Your task to perform on an android device: Go to wifi settings Image 0: 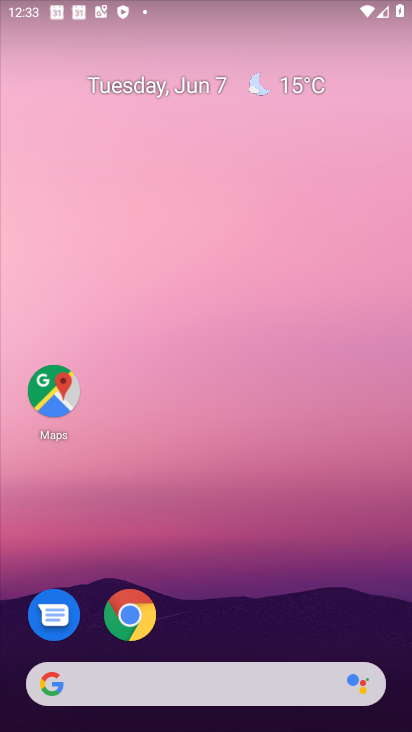
Step 0: drag from (219, 624) to (187, 99)
Your task to perform on an android device: Go to wifi settings Image 1: 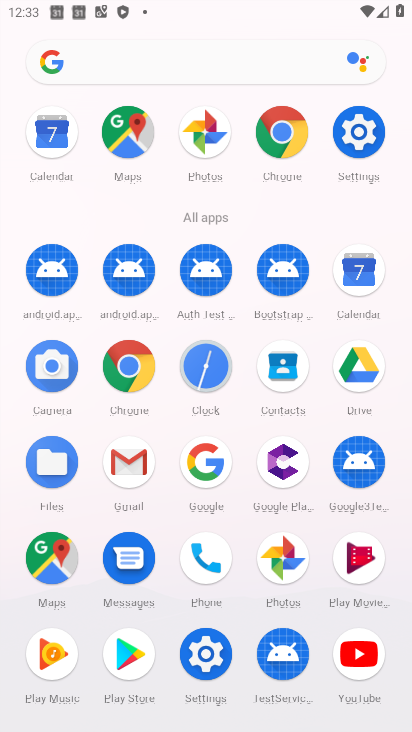
Step 1: drag from (227, 615) to (250, 247)
Your task to perform on an android device: Go to wifi settings Image 2: 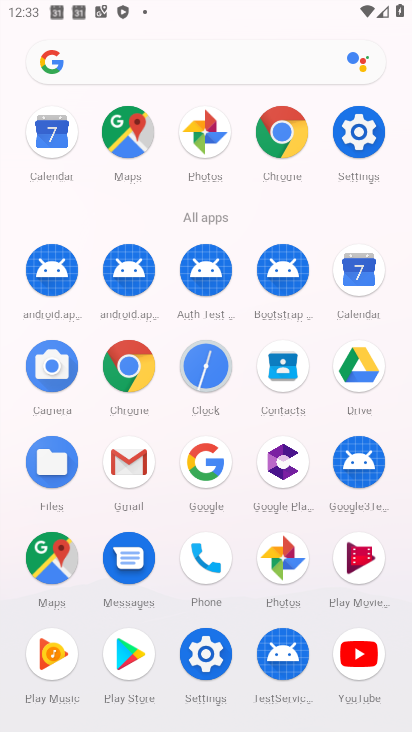
Step 2: drag from (207, 629) to (197, 279)
Your task to perform on an android device: Go to wifi settings Image 3: 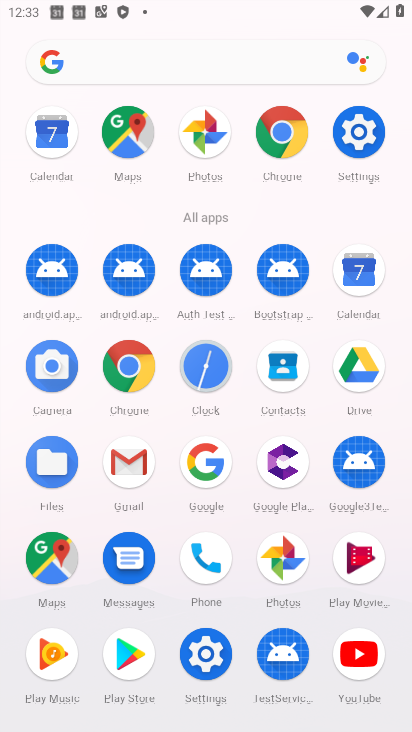
Step 3: drag from (215, 629) to (226, 332)
Your task to perform on an android device: Go to wifi settings Image 4: 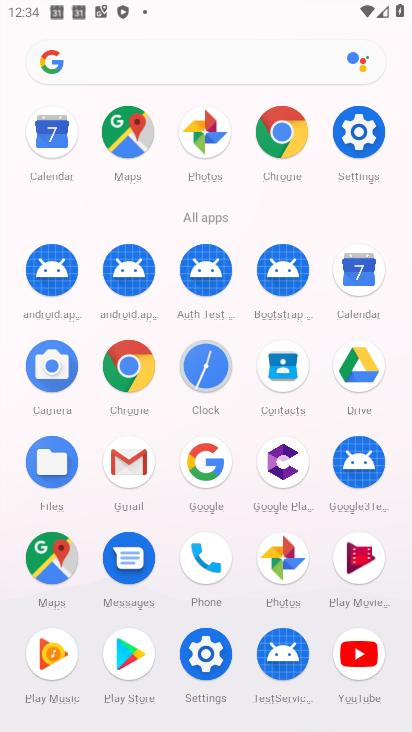
Step 4: drag from (246, 469) to (246, 283)
Your task to perform on an android device: Go to wifi settings Image 5: 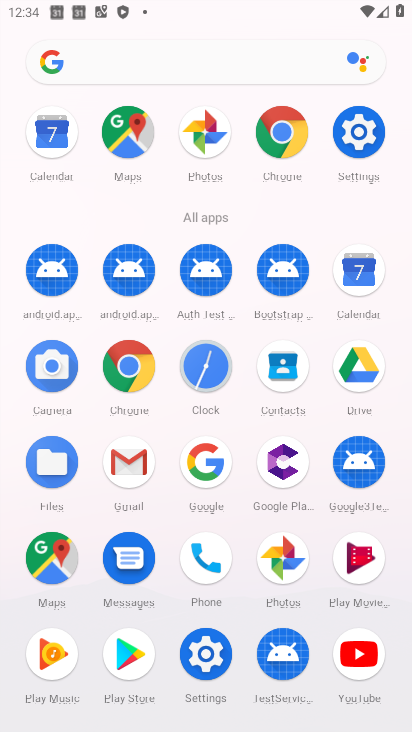
Step 5: drag from (230, 206) to (223, 516)
Your task to perform on an android device: Go to wifi settings Image 6: 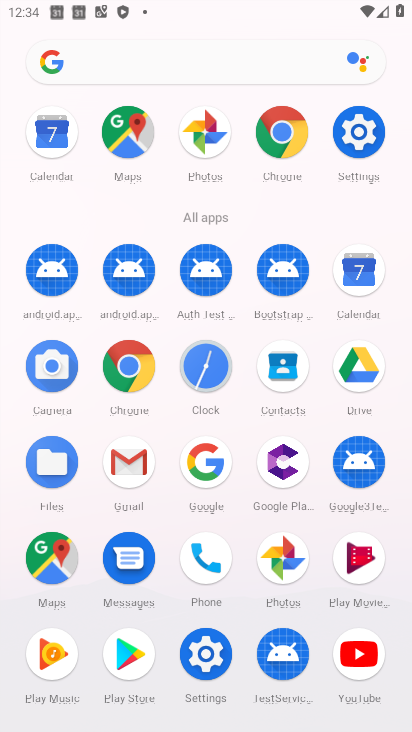
Step 6: click (356, 145)
Your task to perform on an android device: Go to wifi settings Image 7: 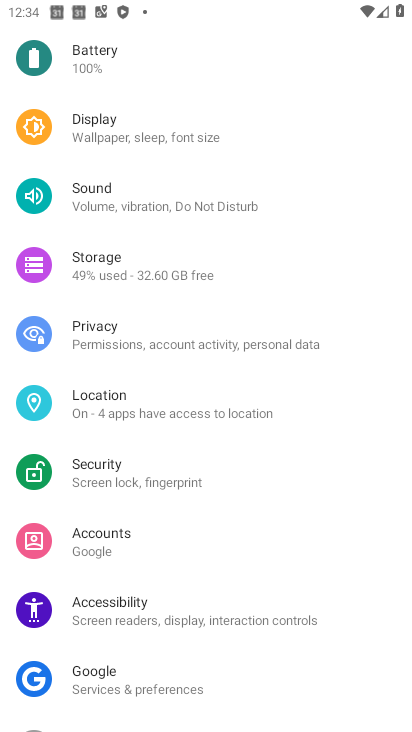
Step 7: drag from (159, 140) to (98, 729)
Your task to perform on an android device: Go to wifi settings Image 8: 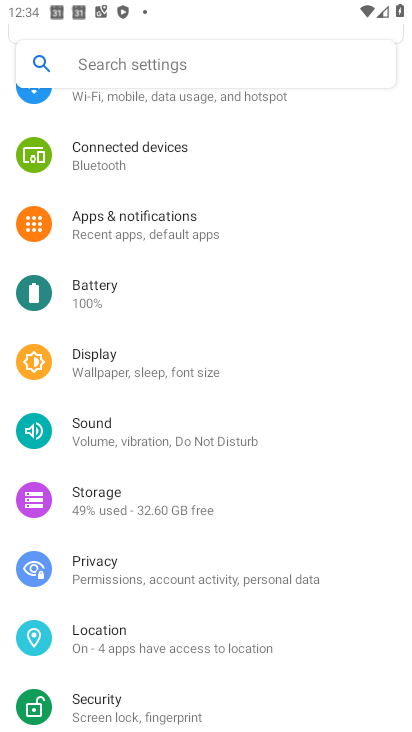
Step 8: drag from (119, 170) to (126, 646)
Your task to perform on an android device: Go to wifi settings Image 9: 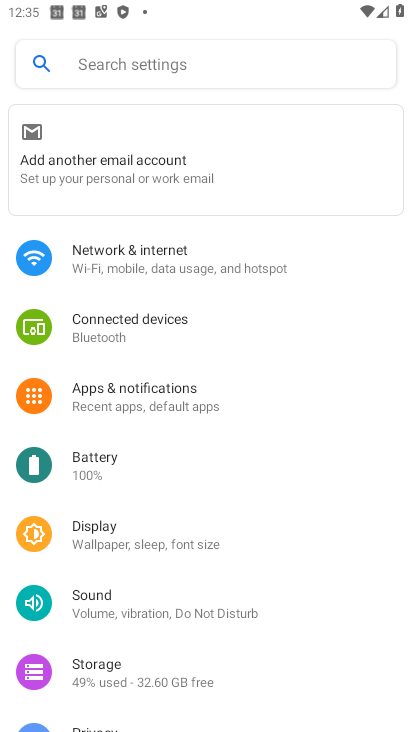
Step 9: click (121, 263)
Your task to perform on an android device: Go to wifi settings Image 10: 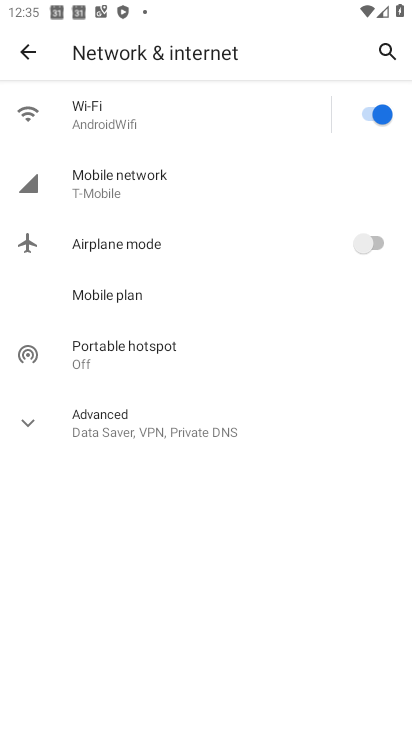
Step 10: click (173, 122)
Your task to perform on an android device: Go to wifi settings Image 11: 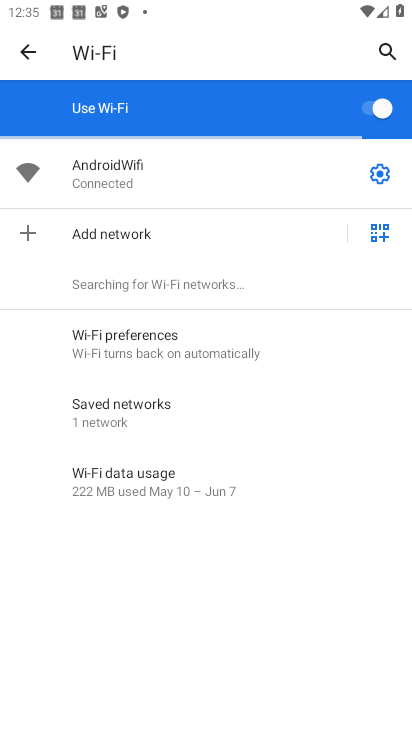
Step 11: task complete